Your task to perform on an android device: Go to Reddit.com Image 0: 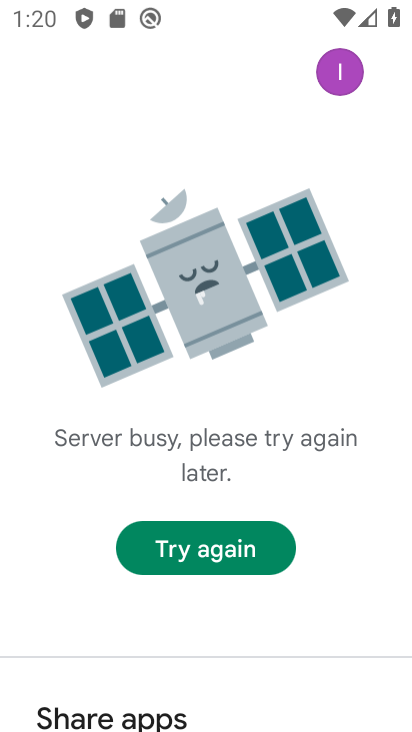
Step 0: press home button
Your task to perform on an android device: Go to Reddit.com Image 1: 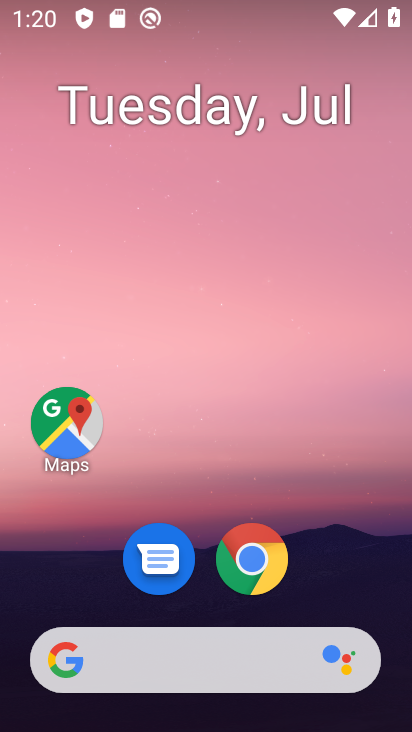
Step 1: drag from (341, 557) to (342, 133)
Your task to perform on an android device: Go to Reddit.com Image 2: 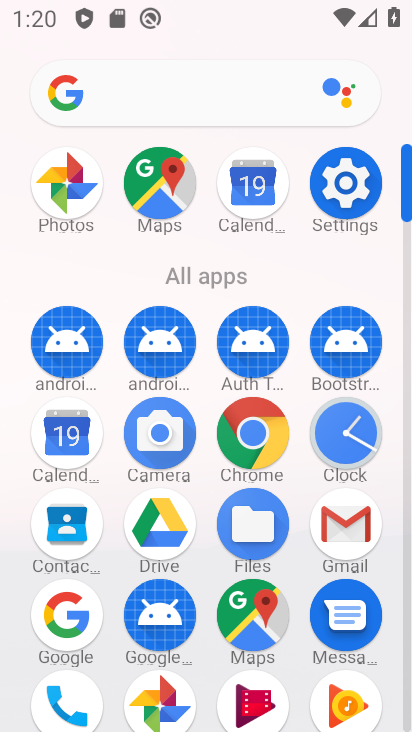
Step 2: click (251, 445)
Your task to perform on an android device: Go to Reddit.com Image 3: 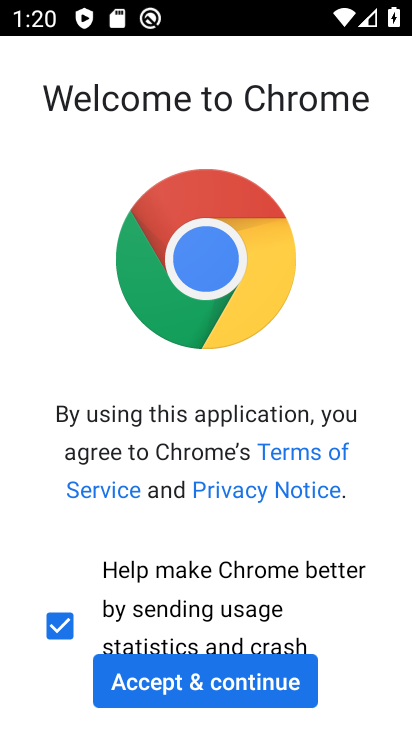
Step 3: click (198, 680)
Your task to perform on an android device: Go to Reddit.com Image 4: 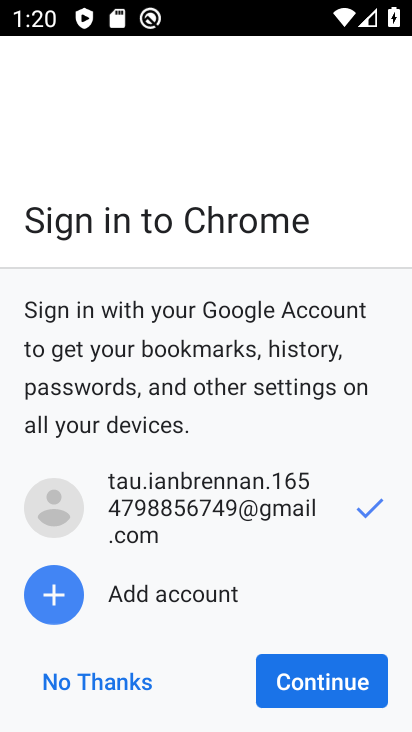
Step 4: click (295, 686)
Your task to perform on an android device: Go to Reddit.com Image 5: 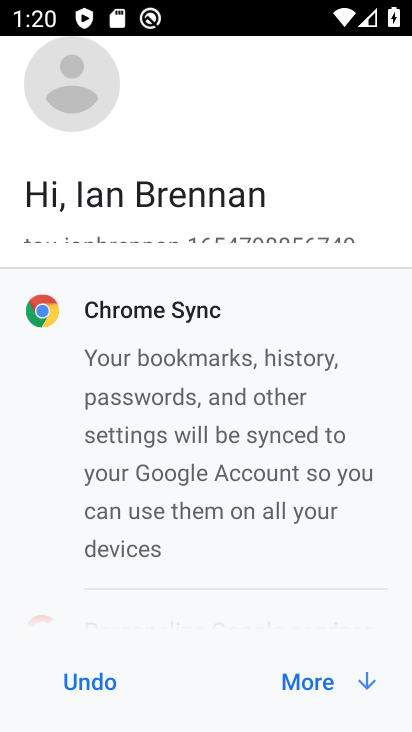
Step 5: click (315, 686)
Your task to perform on an android device: Go to Reddit.com Image 6: 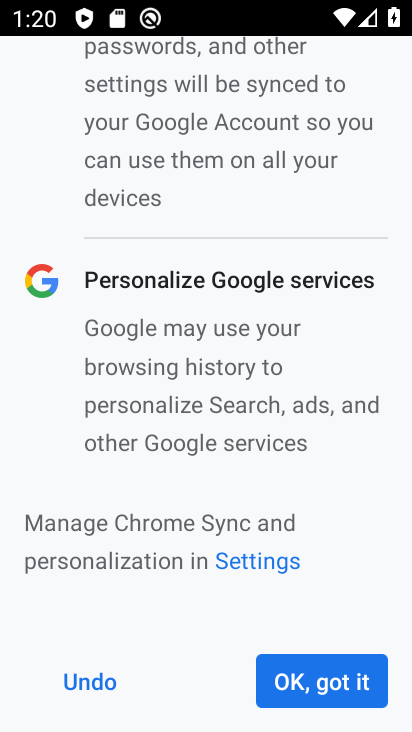
Step 6: click (321, 685)
Your task to perform on an android device: Go to Reddit.com Image 7: 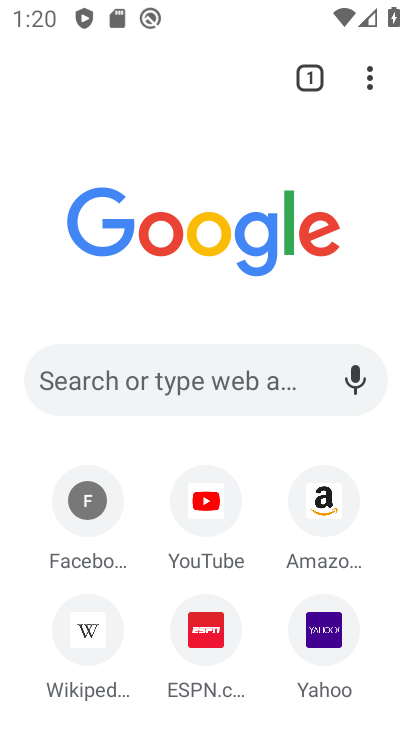
Step 7: click (211, 387)
Your task to perform on an android device: Go to Reddit.com Image 8: 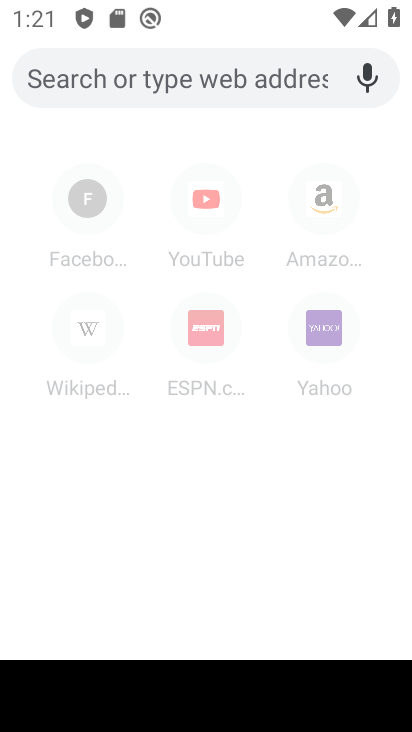
Step 8: type "reddir.com"
Your task to perform on an android device: Go to Reddit.com Image 9: 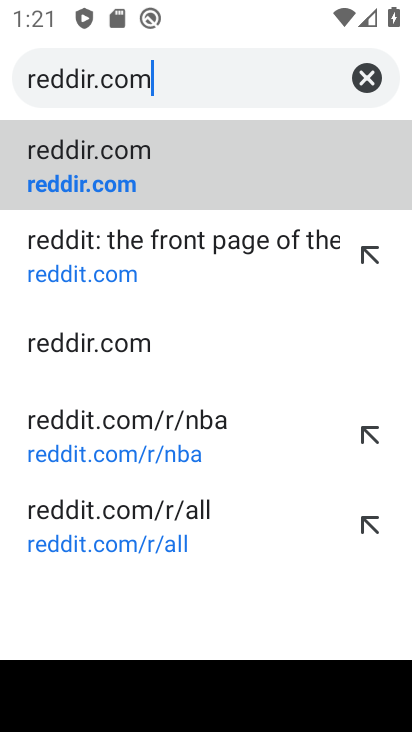
Step 9: click (123, 274)
Your task to perform on an android device: Go to Reddit.com Image 10: 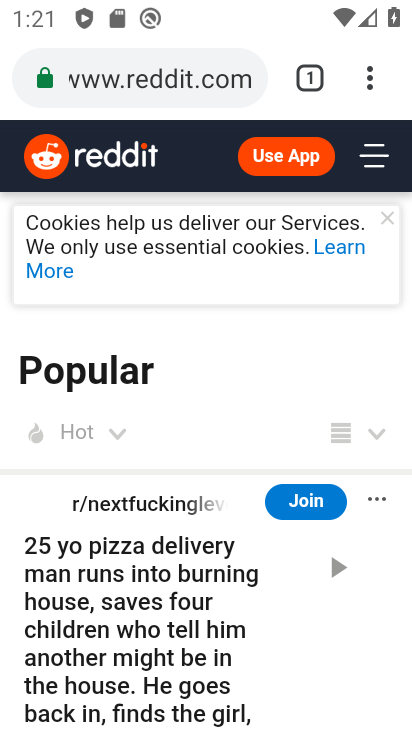
Step 10: task complete